Your task to perform on an android device: change alarm snooze length Image 0: 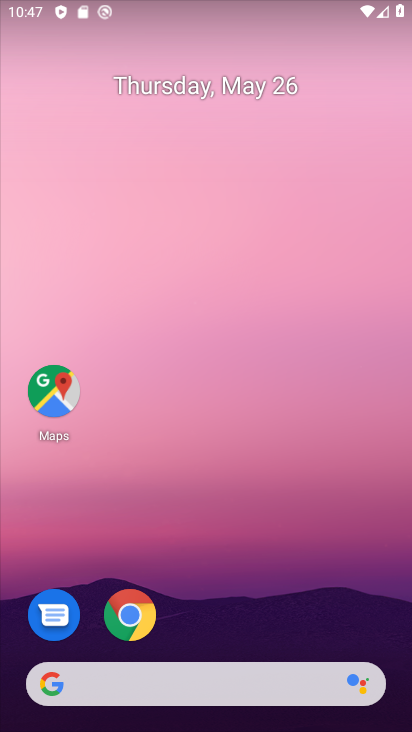
Step 0: drag from (287, 489) to (312, 54)
Your task to perform on an android device: change alarm snooze length Image 1: 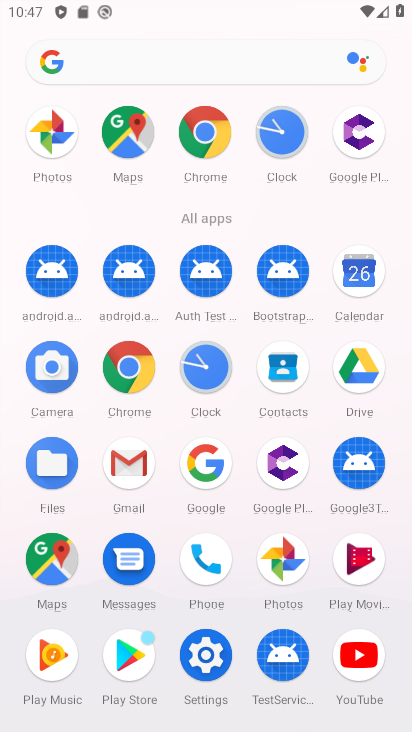
Step 1: click (214, 365)
Your task to perform on an android device: change alarm snooze length Image 2: 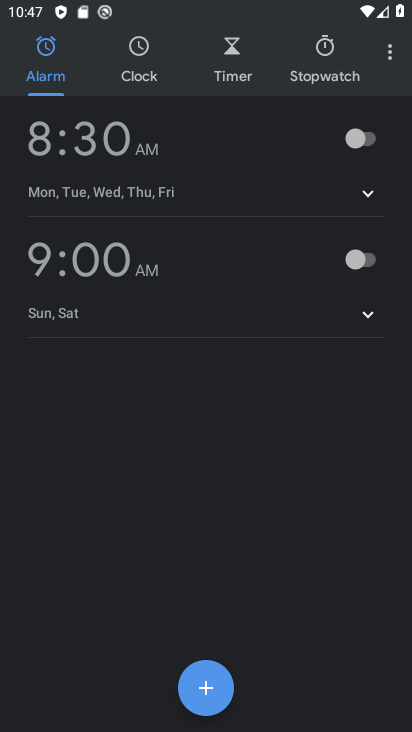
Step 2: click (386, 48)
Your task to perform on an android device: change alarm snooze length Image 3: 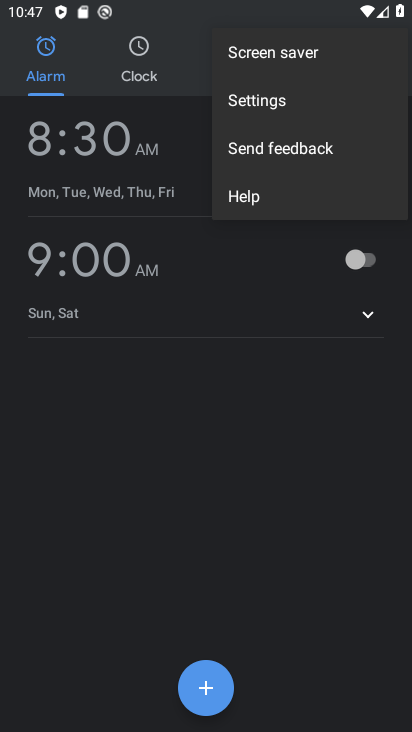
Step 3: click (285, 94)
Your task to perform on an android device: change alarm snooze length Image 4: 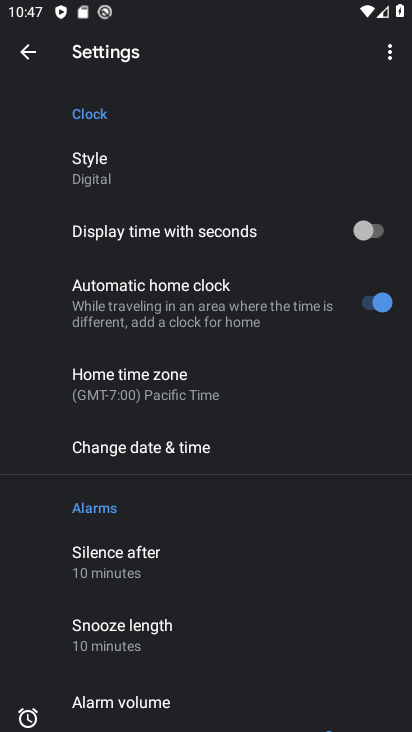
Step 4: click (139, 646)
Your task to perform on an android device: change alarm snooze length Image 5: 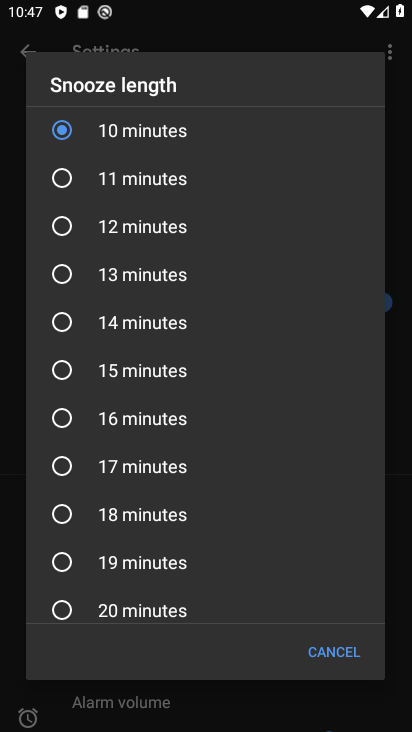
Step 5: click (64, 189)
Your task to perform on an android device: change alarm snooze length Image 6: 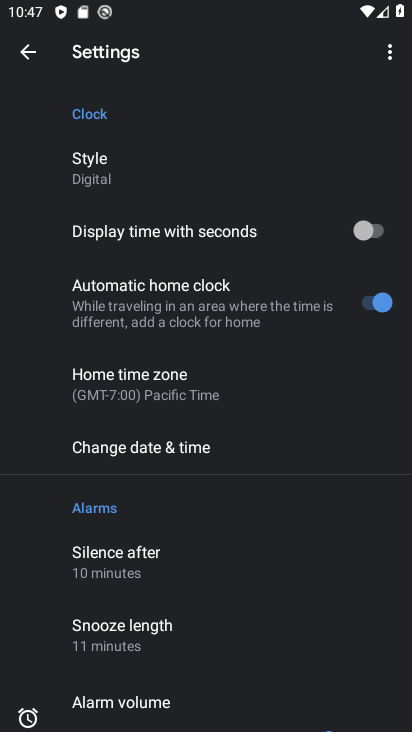
Step 6: task complete